Your task to perform on an android device: What is the recent news? Image 0: 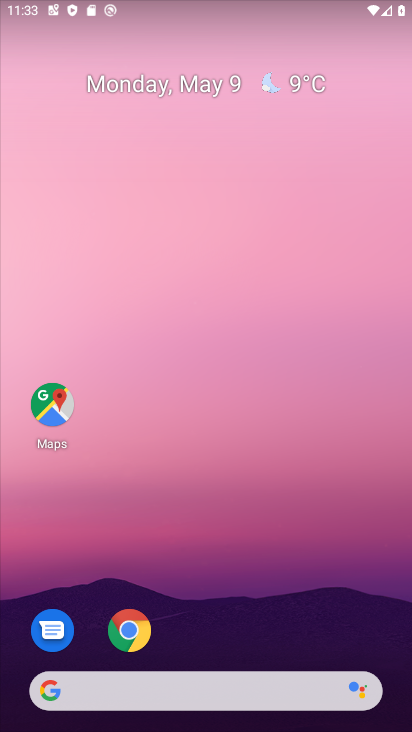
Step 0: drag from (4, 252) to (393, 225)
Your task to perform on an android device: What is the recent news? Image 1: 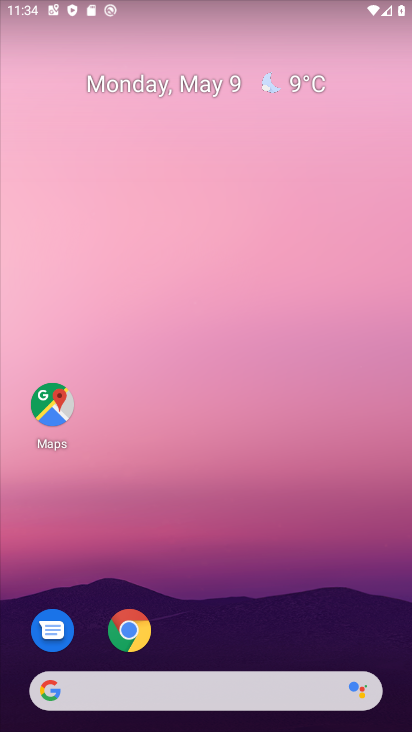
Step 1: task complete